Your task to perform on an android device: Search for sushi restaurants on Maps Image 0: 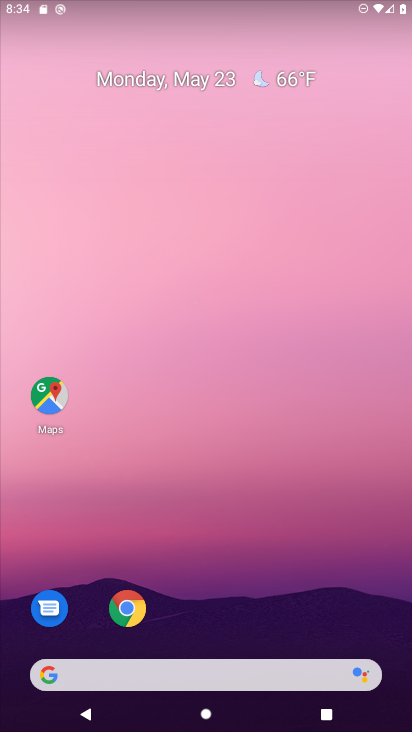
Step 0: drag from (225, 728) to (215, 38)
Your task to perform on an android device: Search for sushi restaurants on Maps Image 1: 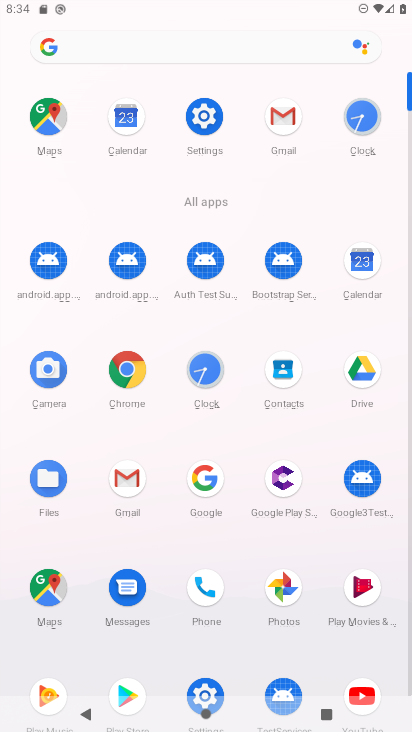
Step 1: click (51, 585)
Your task to perform on an android device: Search for sushi restaurants on Maps Image 2: 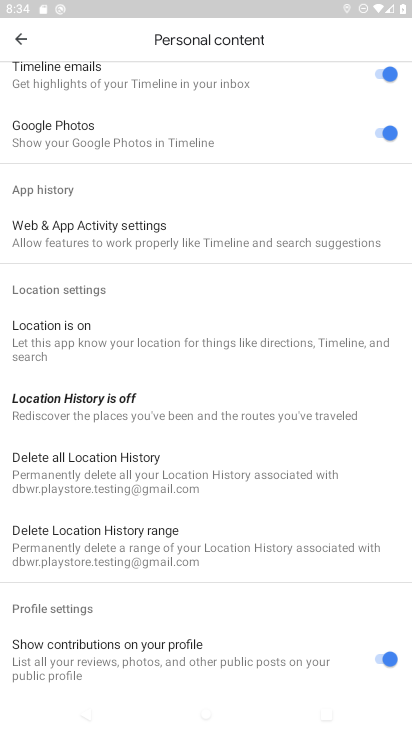
Step 2: click (23, 40)
Your task to perform on an android device: Search for sushi restaurants on Maps Image 3: 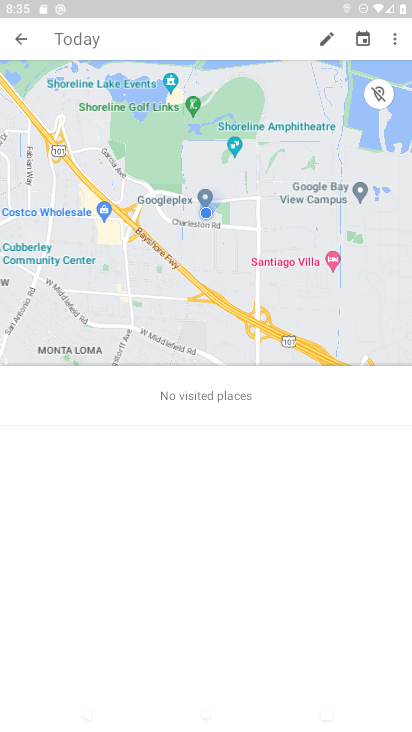
Step 3: click (19, 39)
Your task to perform on an android device: Search for sushi restaurants on Maps Image 4: 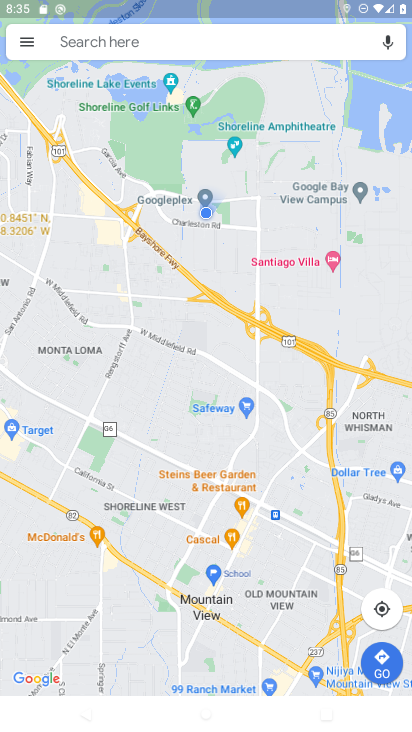
Step 4: click (159, 42)
Your task to perform on an android device: Search for sushi restaurants on Maps Image 5: 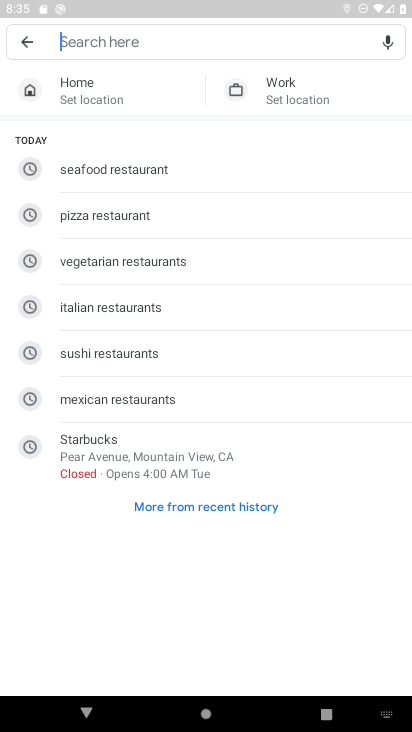
Step 5: type "sushi restaurants"
Your task to perform on an android device: Search for sushi restaurants on Maps Image 6: 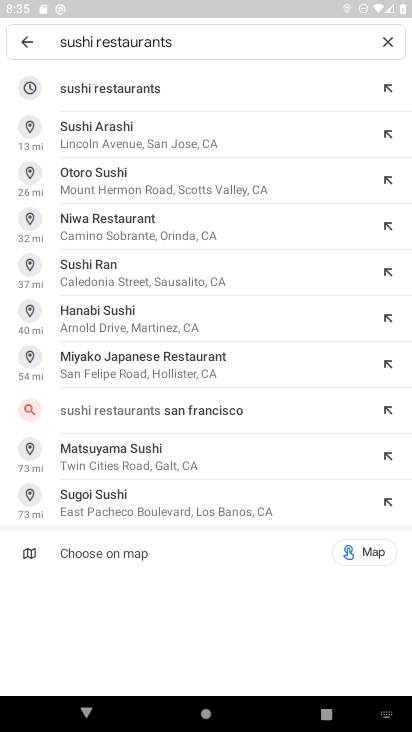
Step 6: click (105, 91)
Your task to perform on an android device: Search for sushi restaurants on Maps Image 7: 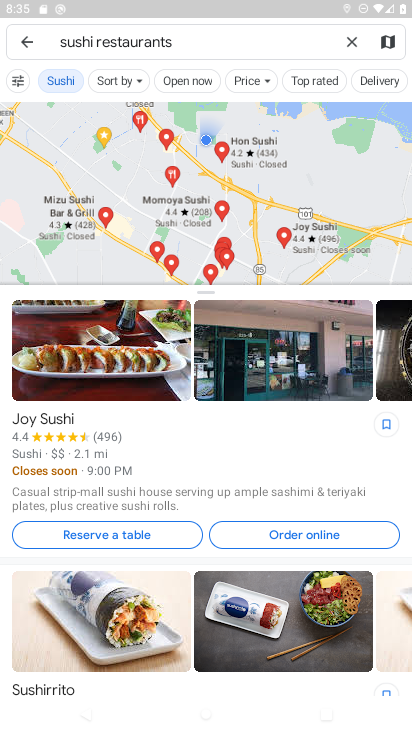
Step 7: task complete